Your task to perform on an android device: What is the news today? Image 0: 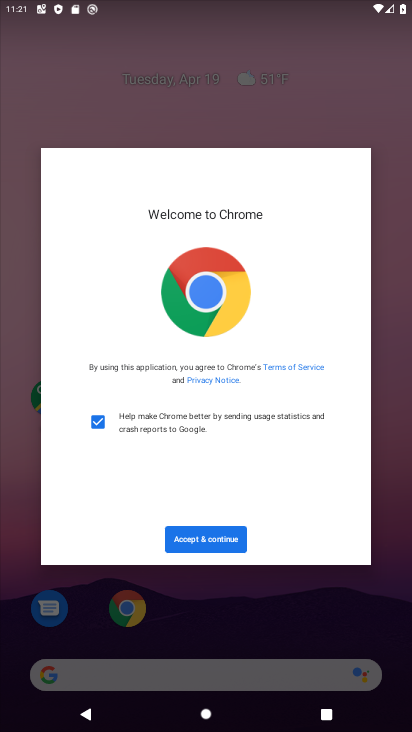
Step 0: press home button
Your task to perform on an android device: What is the news today? Image 1: 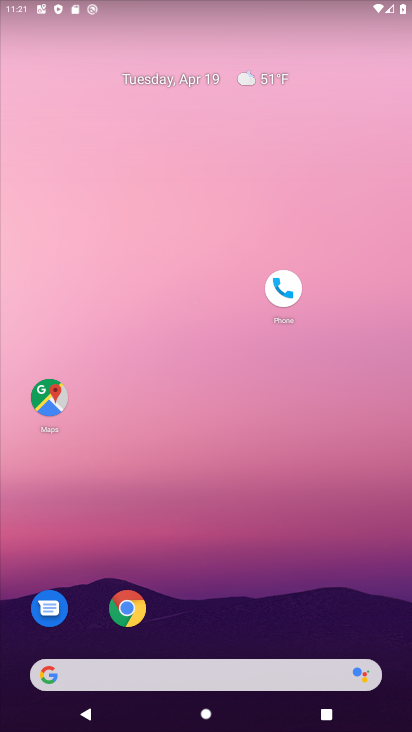
Step 1: click (130, 609)
Your task to perform on an android device: What is the news today? Image 2: 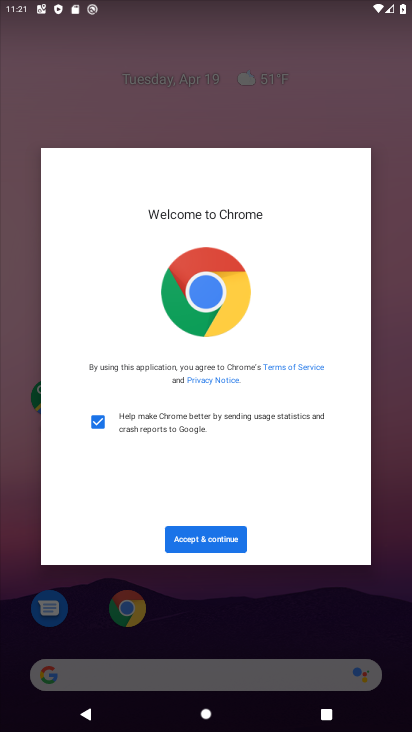
Step 2: click (237, 531)
Your task to perform on an android device: What is the news today? Image 3: 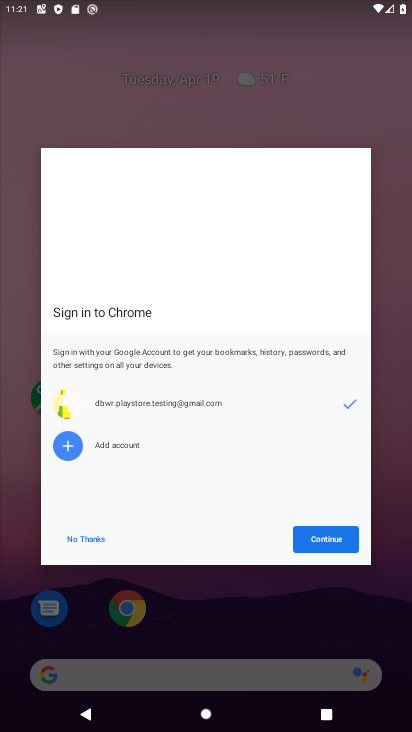
Step 3: click (327, 550)
Your task to perform on an android device: What is the news today? Image 4: 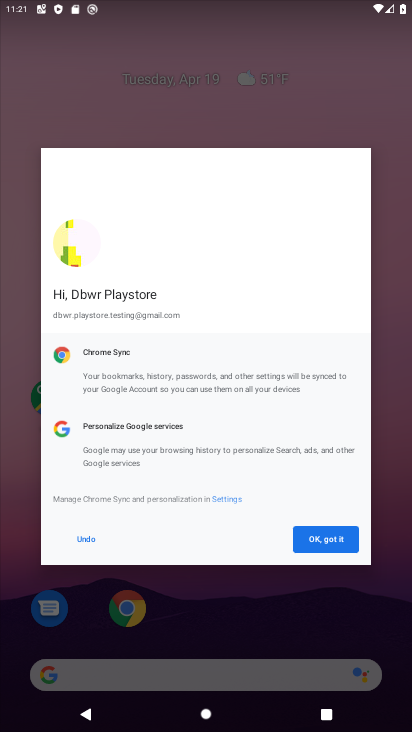
Step 4: click (327, 550)
Your task to perform on an android device: What is the news today? Image 5: 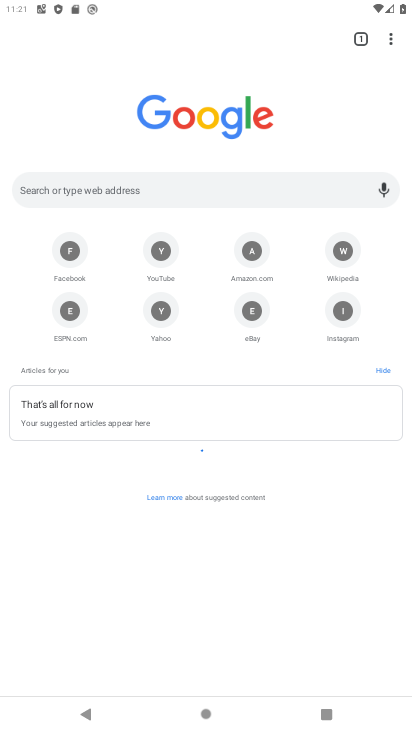
Step 5: click (63, 192)
Your task to perform on an android device: What is the news today? Image 6: 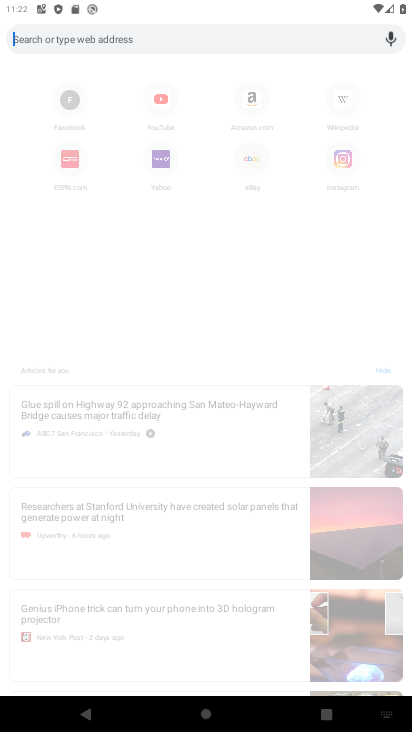
Step 6: type "news"
Your task to perform on an android device: What is the news today? Image 7: 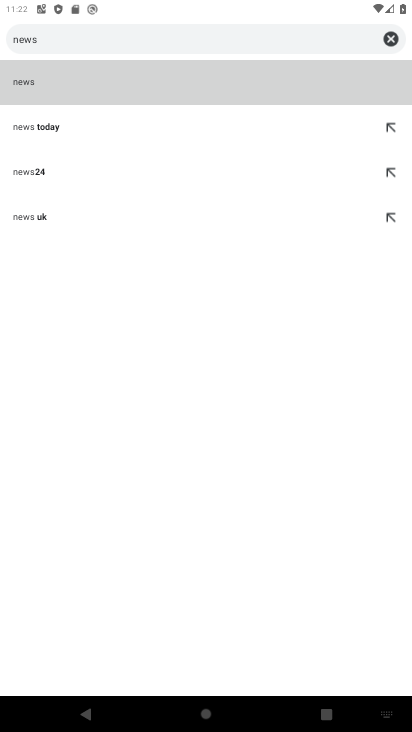
Step 7: click (45, 84)
Your task to perform on an android device: What is the news today? Image 8: 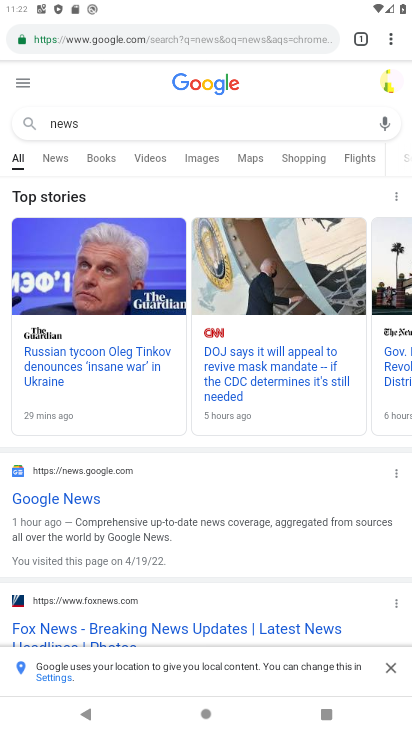
Step 8: task complete